Your task to perform on an android device: Turn off the flashlight Image 0: 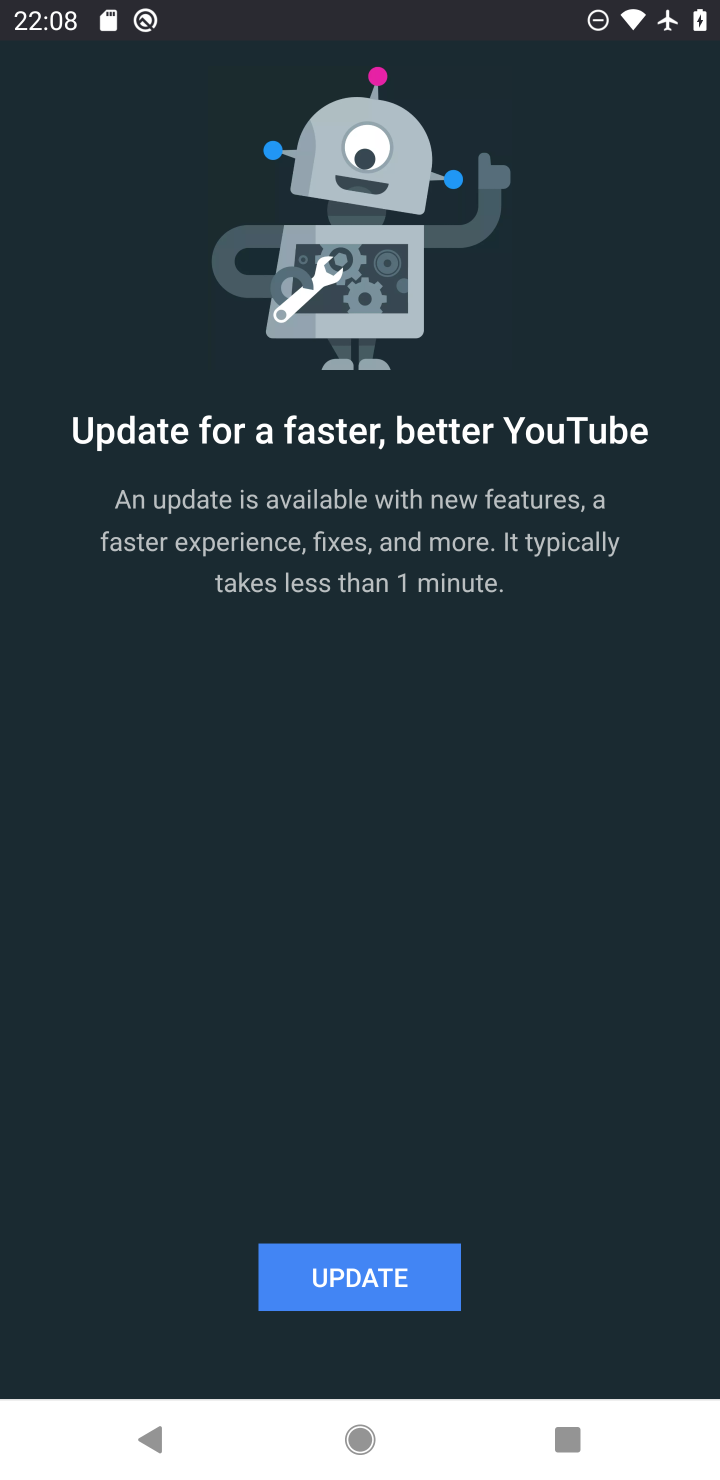
Step 0: press home button
Your task to perform on an android device: Turn off the flashlight Image 1: 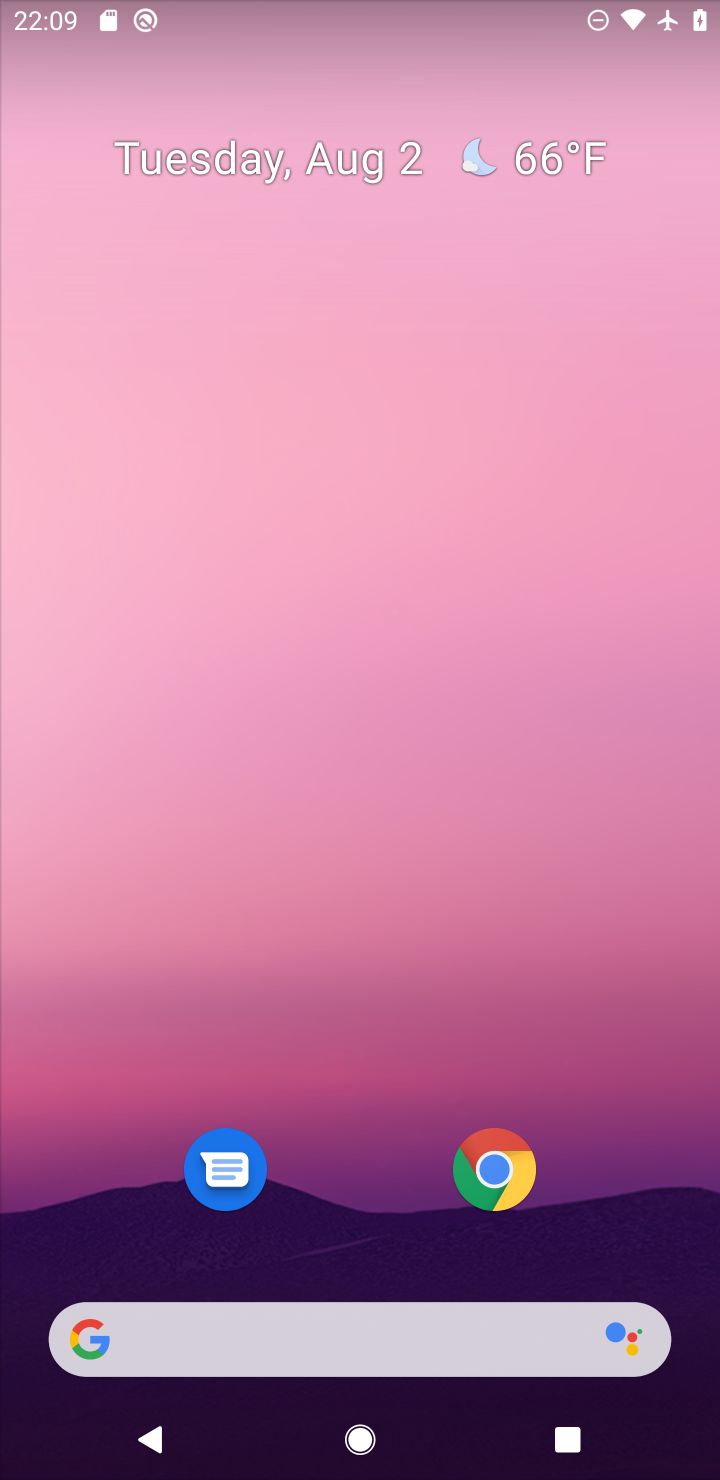
Step 1: drag from (338, 1042) to (430, 61)
Your task to perform on an android device: Turn off the flashlight Image 2: 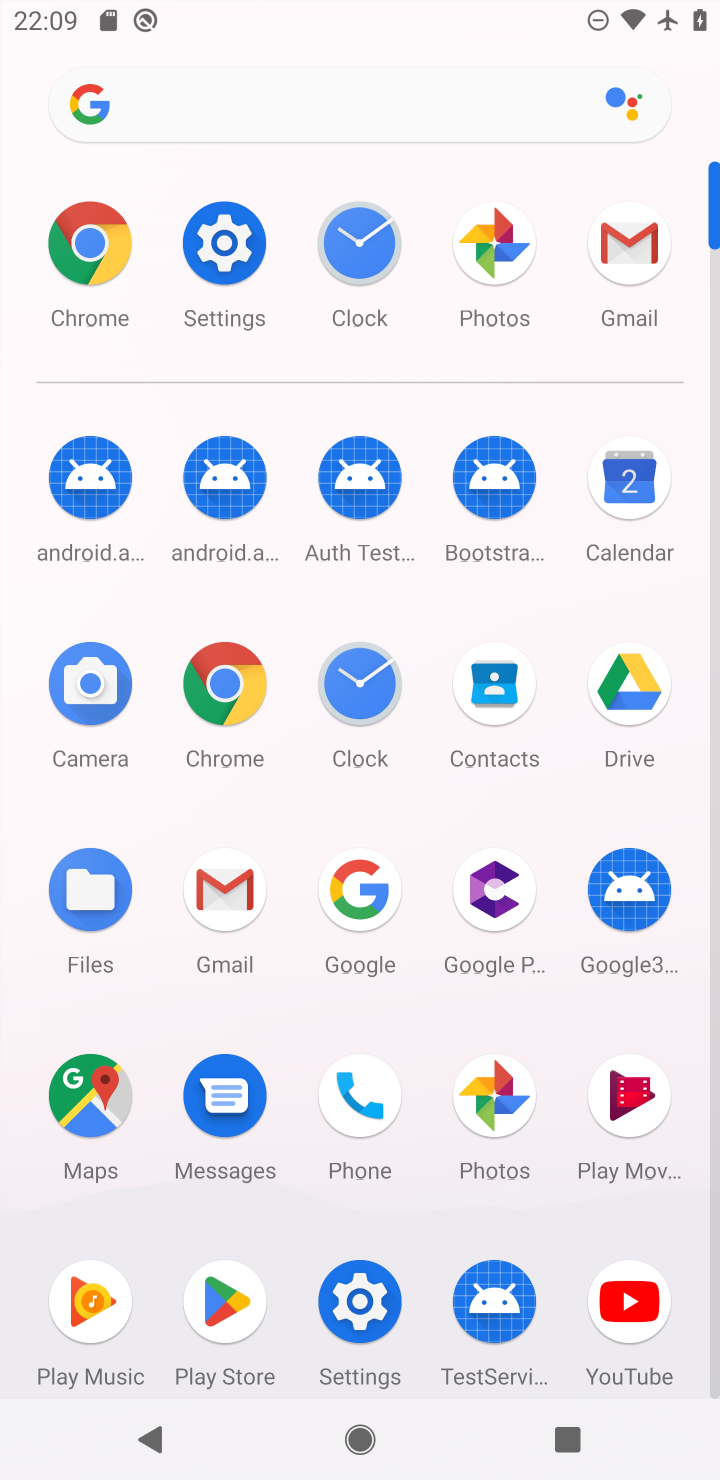
Step 2: click (207, 234)
Your task to perform on an android device: Turn off the flashlight Image 3: 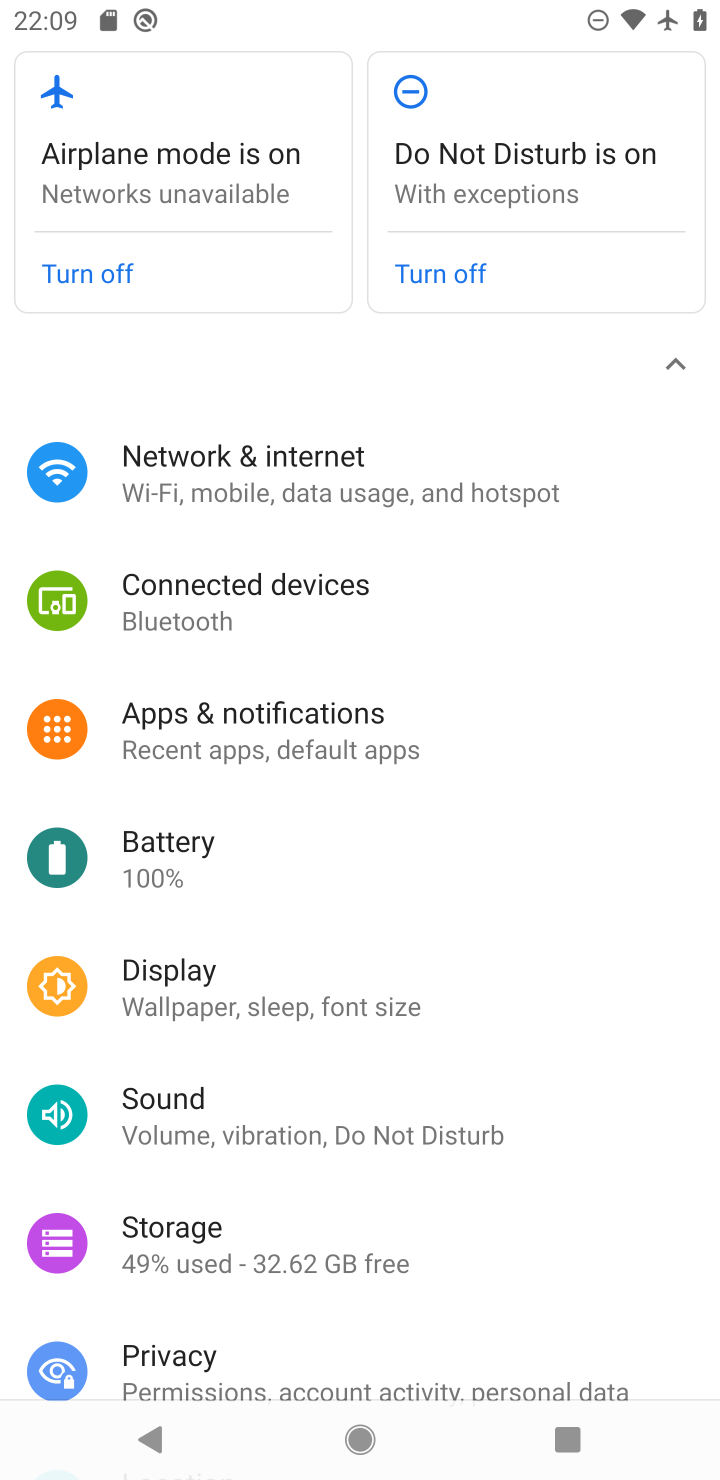
Step 3: task complete